Your task to perform on an android device: Open display settings Image 0: 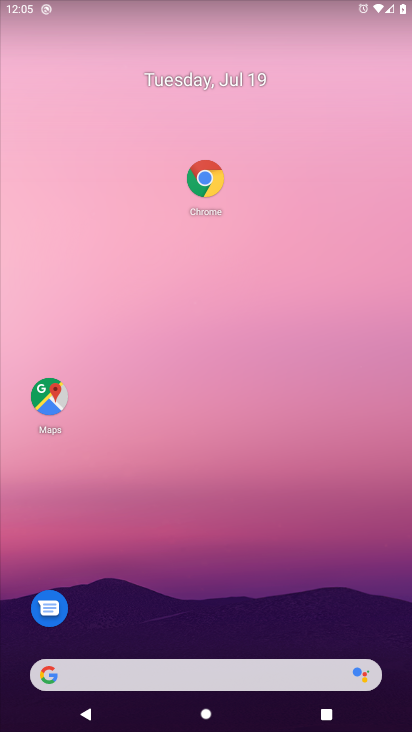
Step 0: drag from (49, 650) to (356, 0)
Your task to perform on an android device: Open display settings Image 1: 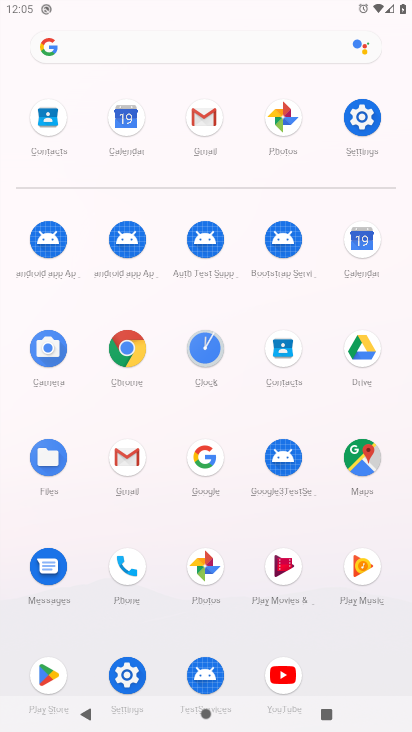
Step 1: click (125, 684)
Your task to perform on an android device: Open display settings Image 2: 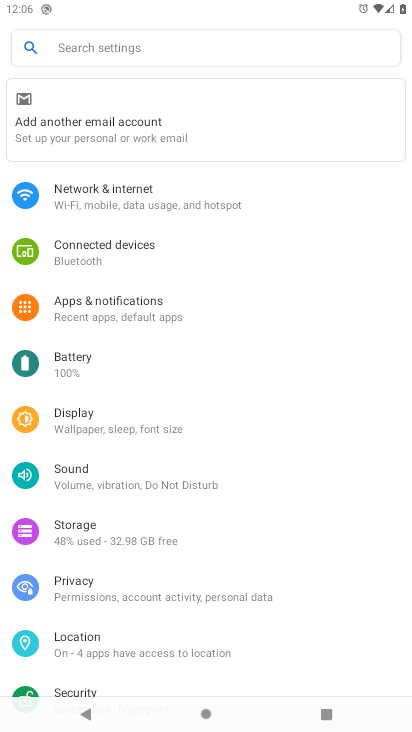
Step 2: drag from (285, 568) to (323, 323)
Your task to perform on an android device: Open display settings Image 3: 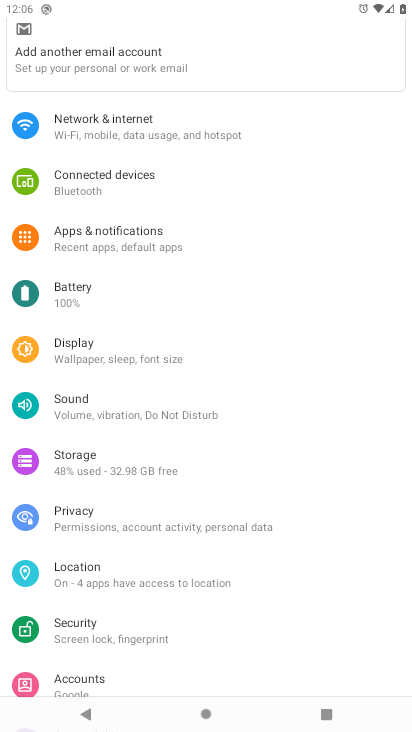
Step 3: drag from (273, 180) to (260, 729)
Your task to perform on an android device: Open display settings Image 4: 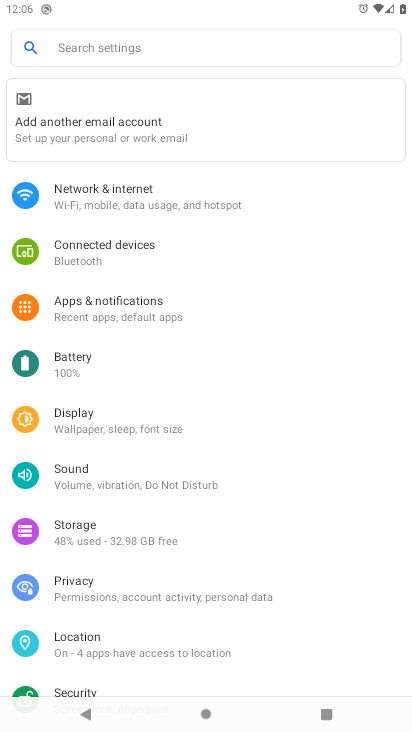
Step 4: click (118, 423)
Your task to perform on an android device: Open display settings Image 5: 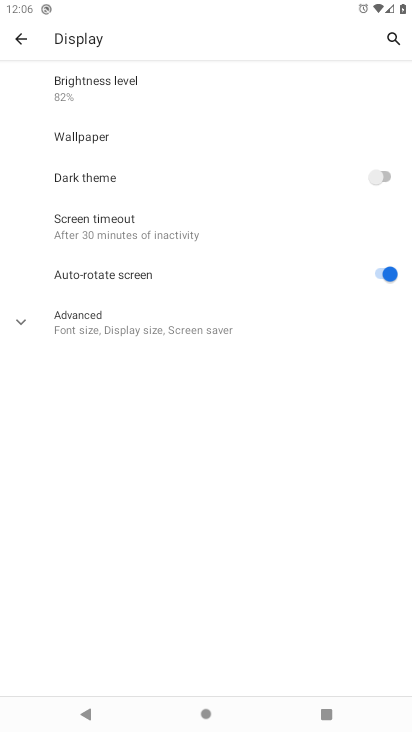
Step 5: task complete